Your task to perform on an android device: check android version Image 0: 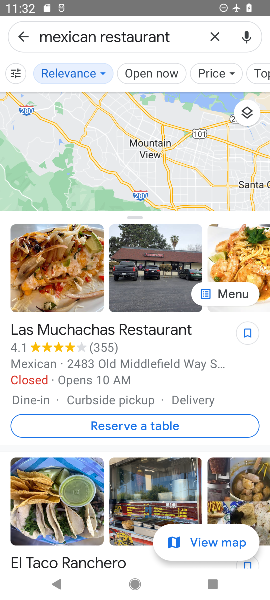
Step 0: click (23, 44)
Your task to perform on an android device: check android version Image 1: 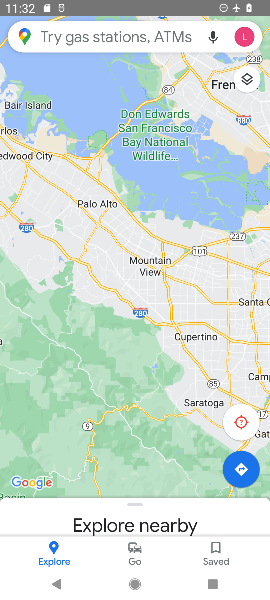
Step 1: press back button
Your task to perform on an android device: check android version Image 2: 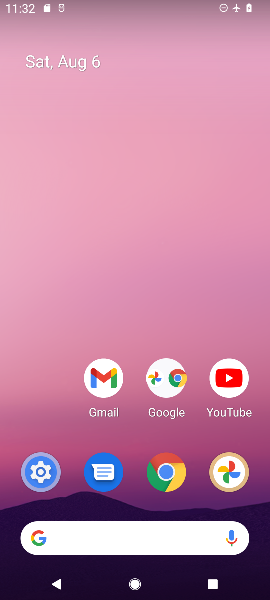
Step 2: drag from (137, 508) to (86, 6)
Your task to perform on an android device: check android version Image 3: 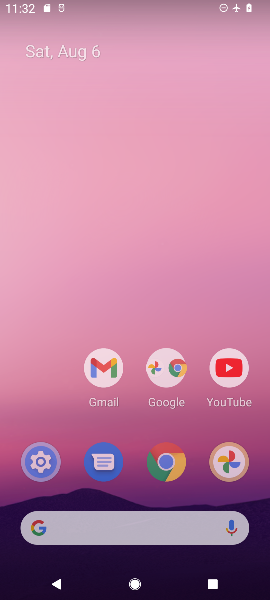
Step 3: drag from (168, 383) to (98, 92)
Your task to perform on an android device: check android version Image 4: 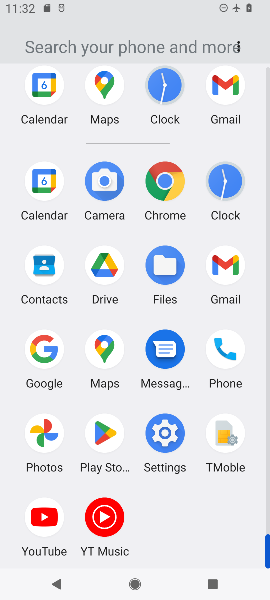
Step 4: click (162, 187)
Your task to perform on an android device: check android version Image 5: 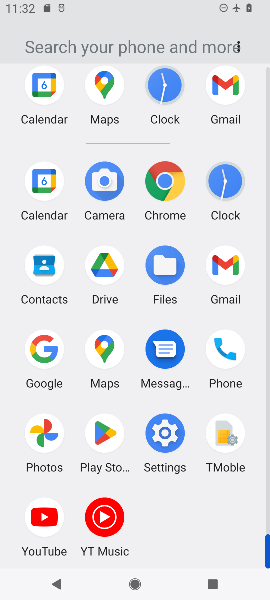
Step 5: click (163, 190)
Your task to perform on an android device: check android version Image 6: 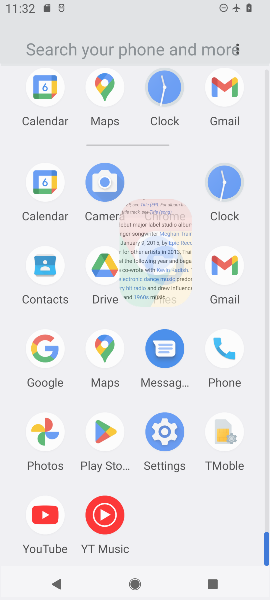
Step 6: click (164, 190)
Your task to perform on an android device: check android version Image 7: 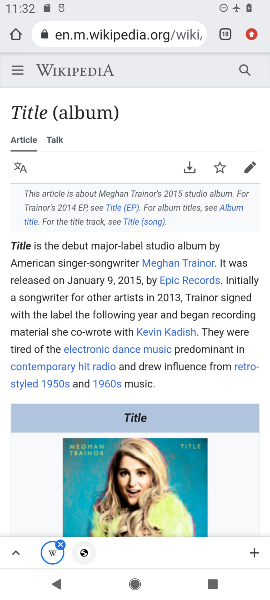
Step 7: click (166, 200)
Your task to perform on an android device: check android version Image 8: 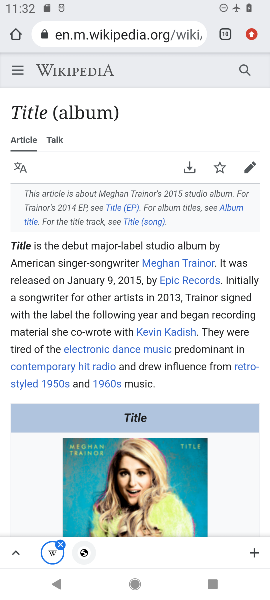
Step 8: drag from (250, 3) to (169, 576)
Your task to perform on an android device: check android version Image 9: 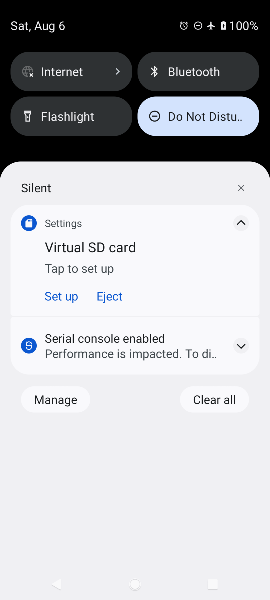
Step 9: click (123, 21)
Your task to perform on an android device: check android version Image 10: 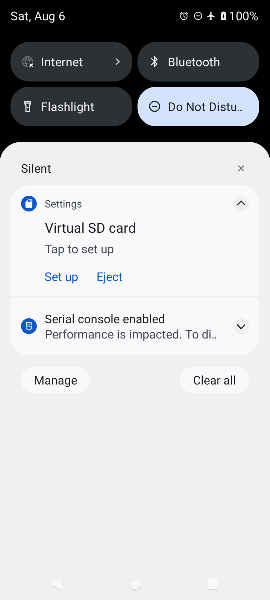
Step 10: press back button
Your task to perform on an android device: check android version Image 11: 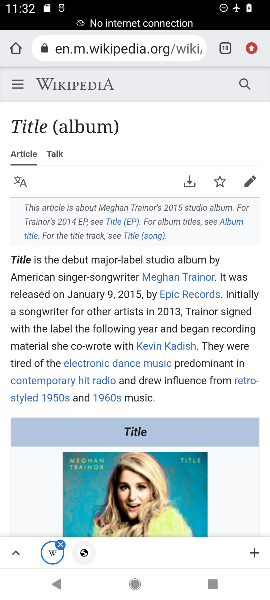
Step 11: drag from (248, 42) to (253, 226)
Your task to perform on an android device: check android version Image 12: 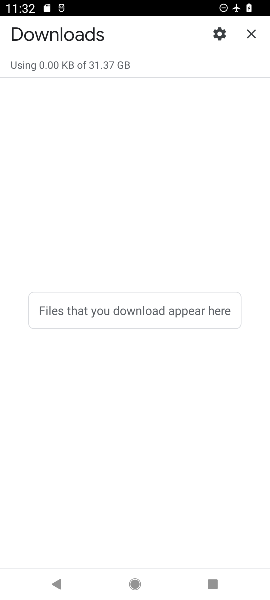
Step 12: press back button
Your task to perform on an android device: check android version Image 13: 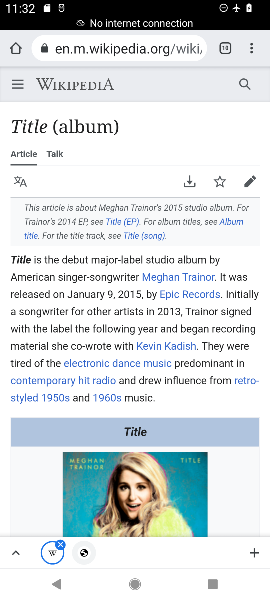
Step 13: press home button
Your task to perform on an android device: check android version Image 14: 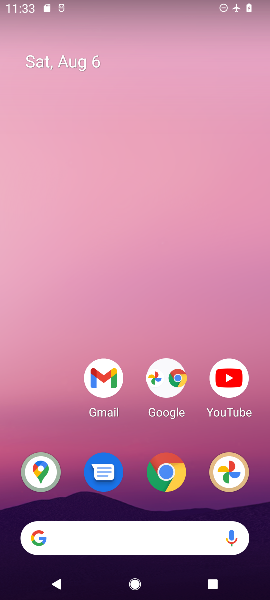
Step 14: drag from (210, 492) to (171, 148)
Your task to perform on an android device: check android version Image 15: 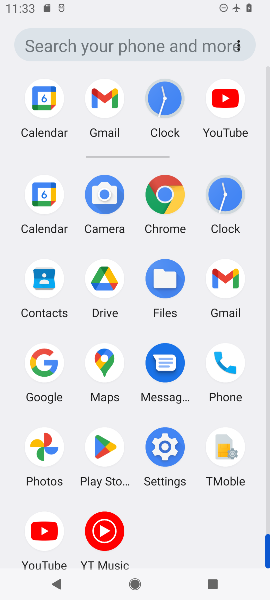
Step 15: drag from (142, 344) to (90, 127)
Your task to perform on an android device: check android version Image 16: 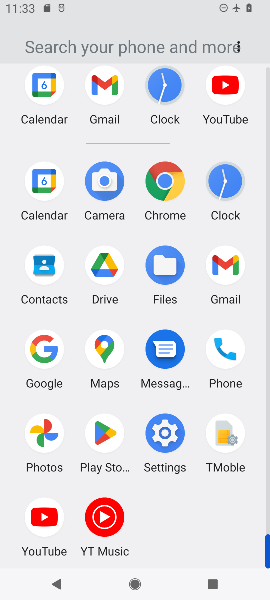
Step 16: click (143, 435)
Your task to perform on an android device: check android version Image 17: 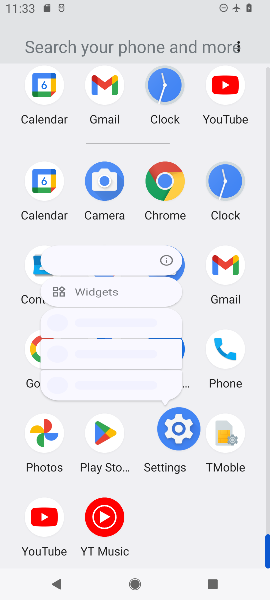
Step 17: click (160, 434)
Your task to perform on an android device: check android version Image 18: 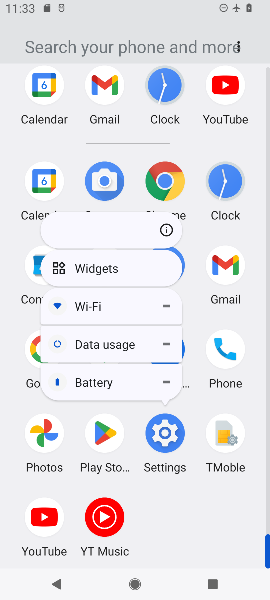
Step 18: click (160, 434)
Your task to perform on an android device: check android version Image 19: 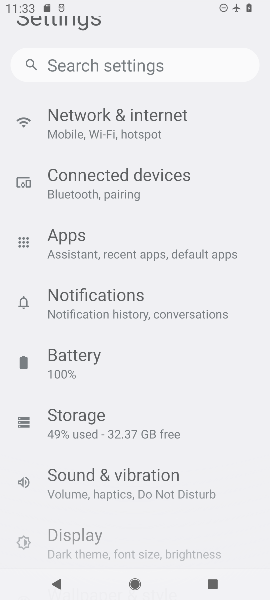
Step 19: click (171, 434)
Your task to perform on an android device: check android version Image 20: 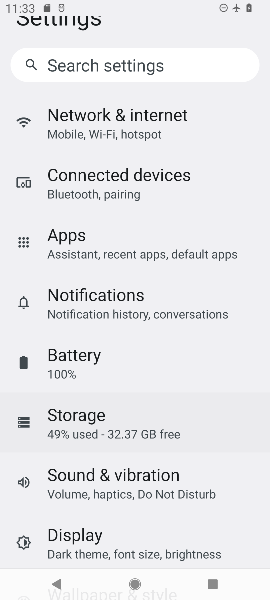
Step 20: drag from (147, 496) to (103, 141)
Your task to perform on an android device: check android version Image 21: 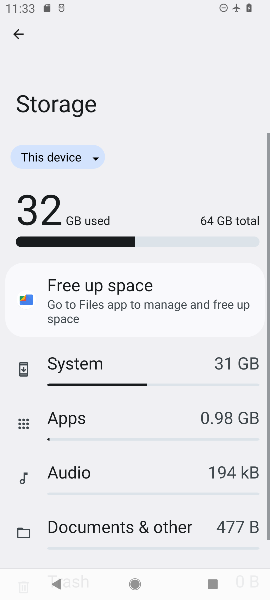
Step 21: click (36, 37)
Your task to perform on an android device: check android version Image 22: 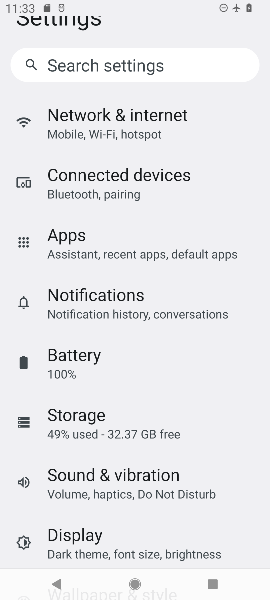
Step 22: drag from (134, 444) to (89, 107)
Your task to perform on an android device: check android version Image 23: 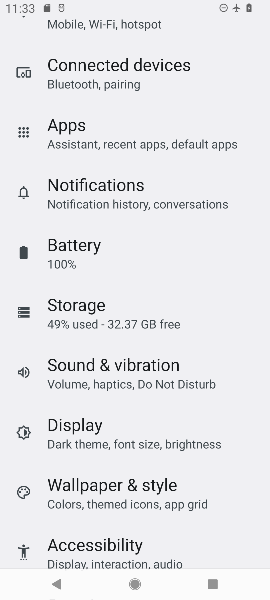
Step 23: drag from (128, 495) to (78, 123)
Your task to perform on an android device: check android version Image 24: 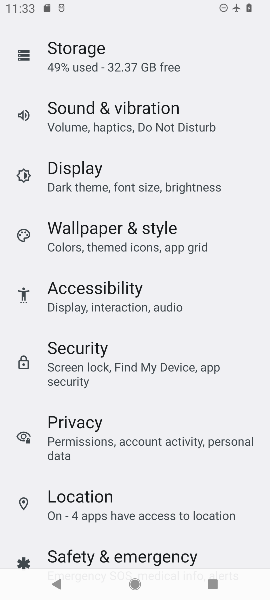
Step 24: drag from (70, 442) to (71, 224)
Your task to perform on an android device: check android version Image 25: 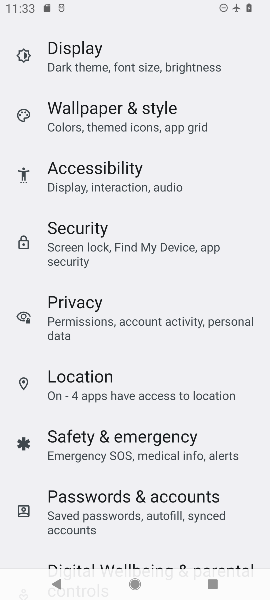
Step 25: drag from (124, 439) to (136, 234)
Your task to perform on an android device: check android version Image 26: 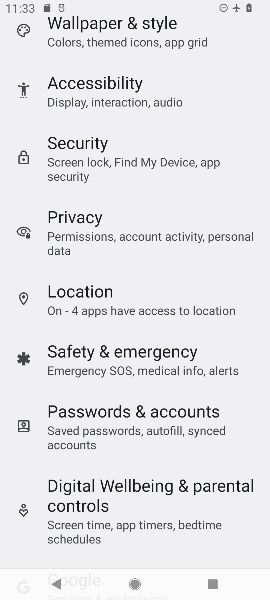
Step 26: drag from (140, 537) to (155, 223)
Your task to perform on an android device: check android version Image 27: 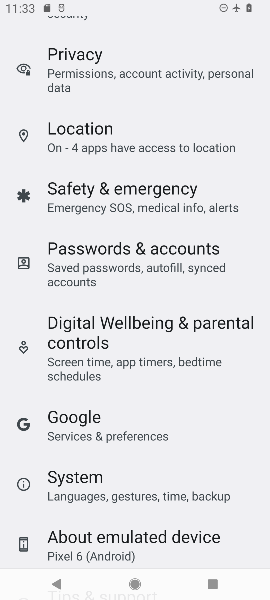
Step 27: drag from (155, 498) to (155, 241)
Your task to perform on an android device: check android version Image 28: 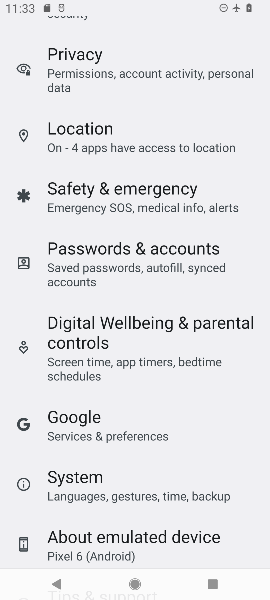
Step 28: click (172, 264)
Your task to perform on an android device: check android version Image 29: 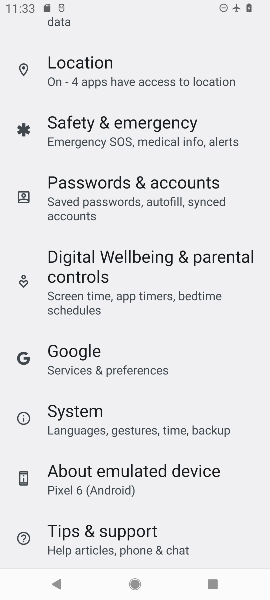
Step 29: click (96, 440)
Your task to perform on an android device: check android version Image 30: 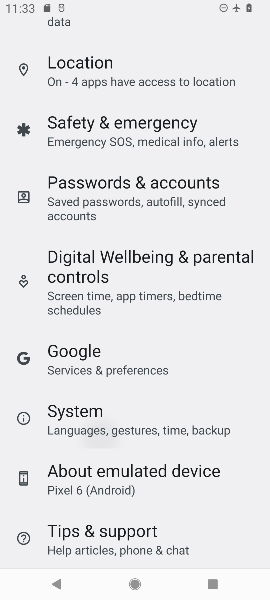
Step 30: click (95, 467)
Your task to perform on an android device: check android version Image 31: 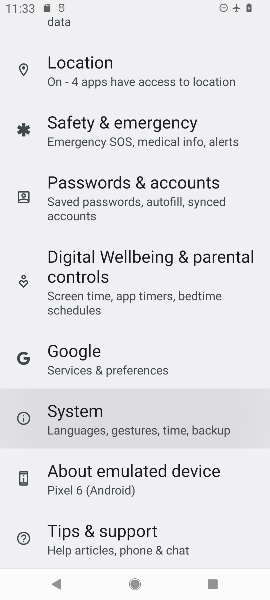
Step 31: click (95, 469)
Your task to perform on an android device: check android version Image 32: 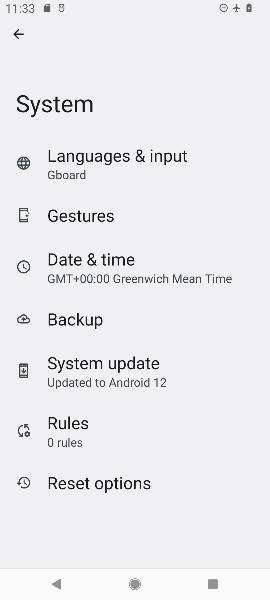
Step 32: click (98, 469)
Your task to perform on an android device: check android version Image 33: 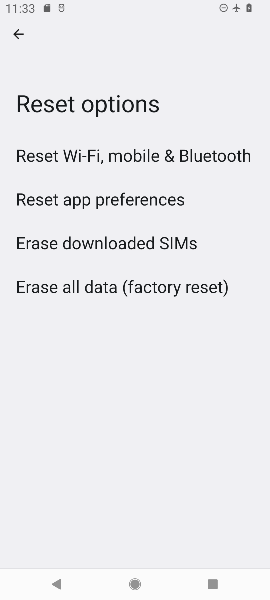
Step 33: task complete